Your task to perform on an android device: change text size in settings app Image 0: 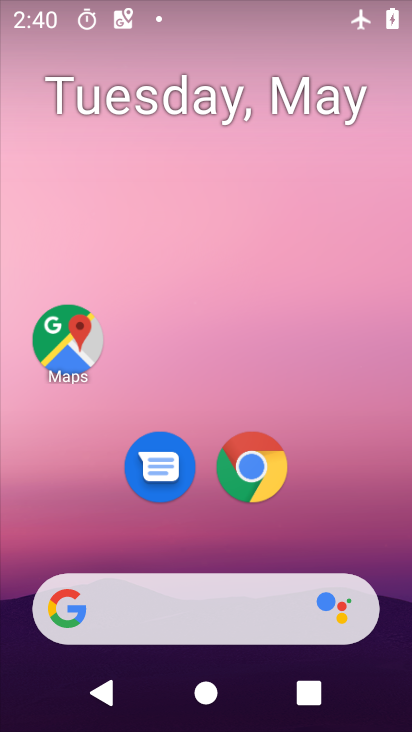
Step 0: drag from (380, 553) to (379, 151)
Your task to perform on an android device: change text size in settings app Image 1: 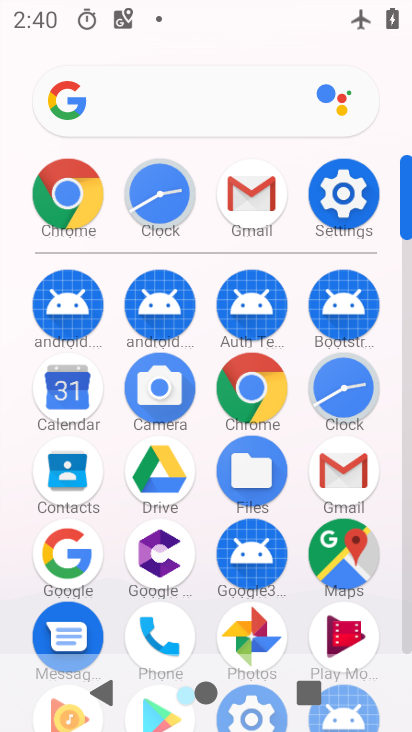
Step 1: click (356, 209)
Your task to perform on an android device: change text size in settings app Image 2: 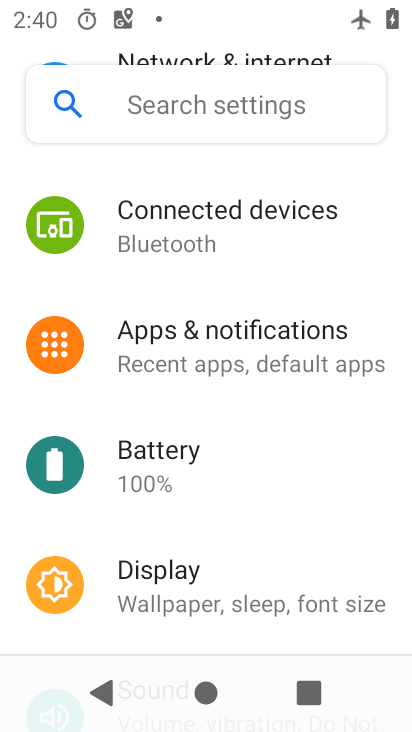
Step 2: drag from (326, 484) to (351, 333)
Your task to perform on an android device: change text size in settings app Image 3: 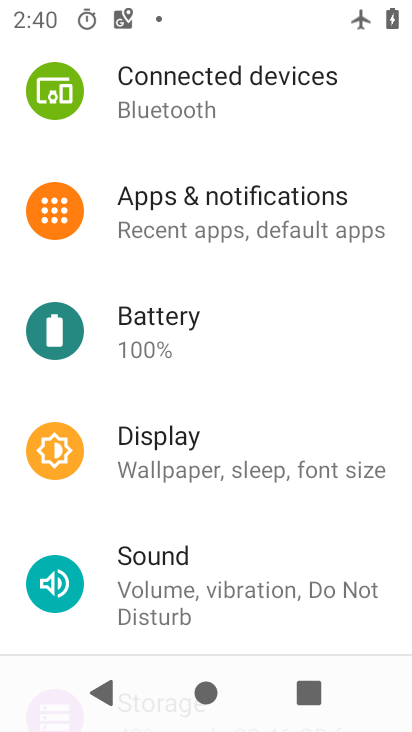
Step 3: drag from (314, 530) to (324, 306)
Your task to perform on an android device: change text size in settings app Image 4: 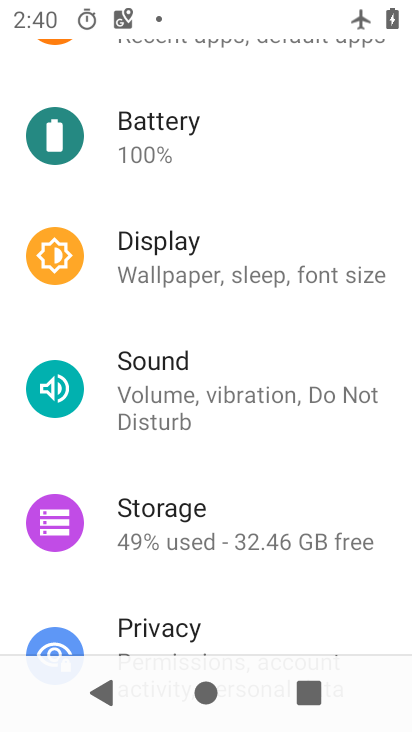
Step 4: click (266, 251)
Your task to perform on an android device: change text size in settings app Image 5: 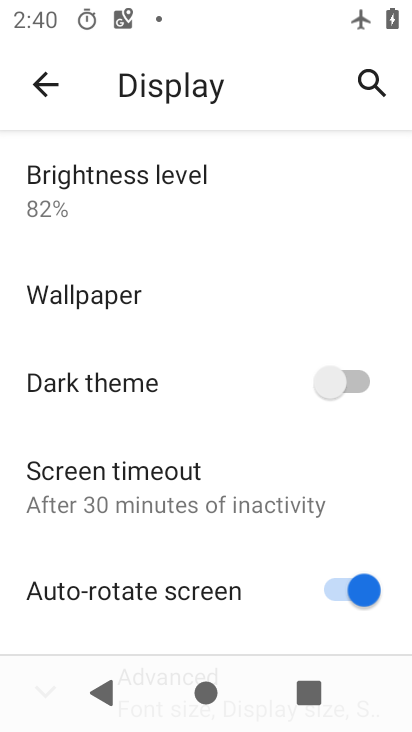
Step 5: drag from (274, 468) to (256, 310)
Your task to perform on an android device: change text size in settings app Image 6: 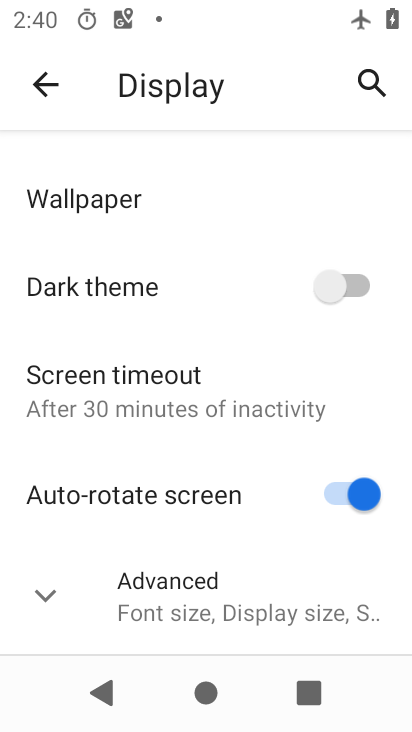
Step 6: click (253, 597)
Your task to perform on an android device: change text size in settings app Image 7: 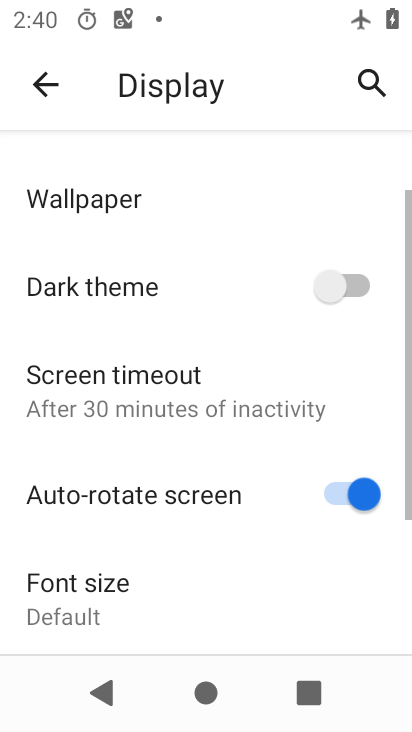
Step 7: drag from (259, 540) to (260, 334)
Your task to perform on an android device: change text size in settings app Image 8: 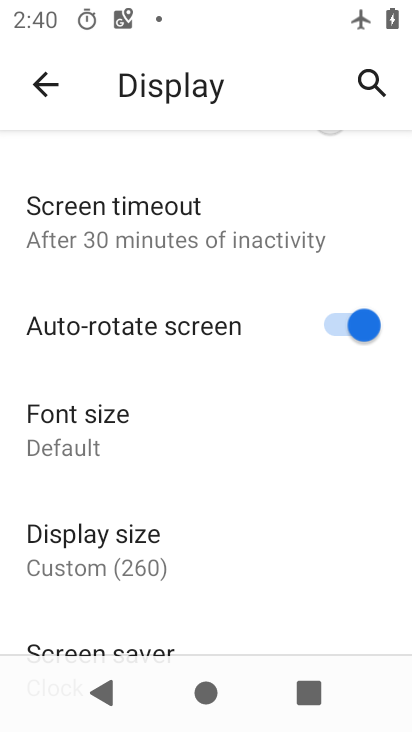
Step 8: click (94, 434)
Your task to perform on an android device: change text size in settings app Image 9: 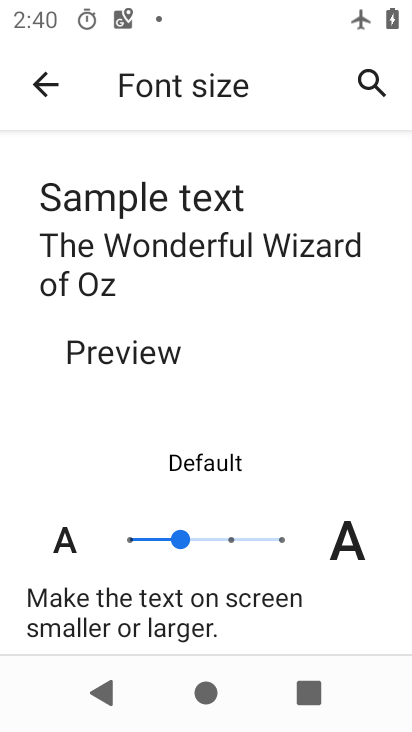
Step 9: click (224, 536)
Your task to perform on an android device: change text size in settings app Image 10: 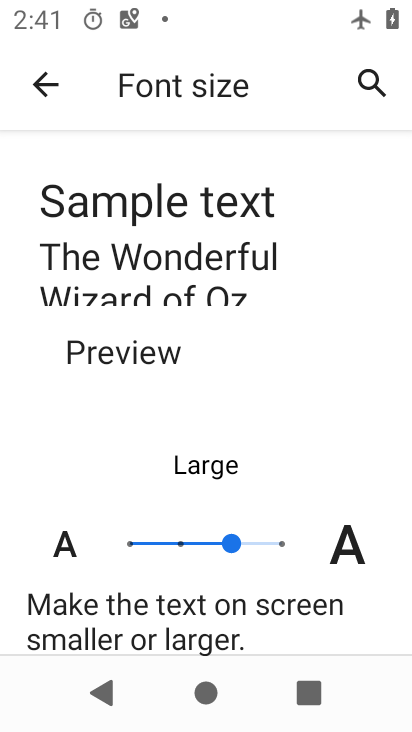
Step 10: task complete